Your task to perform on an android device: create a new album in the google photos Image 0: 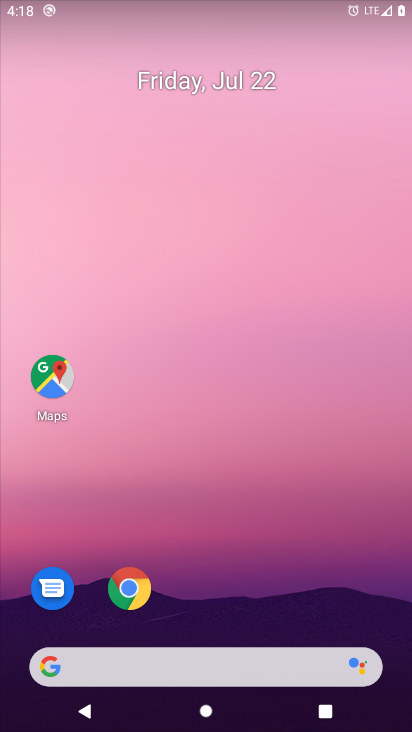
Step 0: drag from (312, 598) to (331, 75)
Your task to perform on an android device: create a new album in the google photos Image 1: 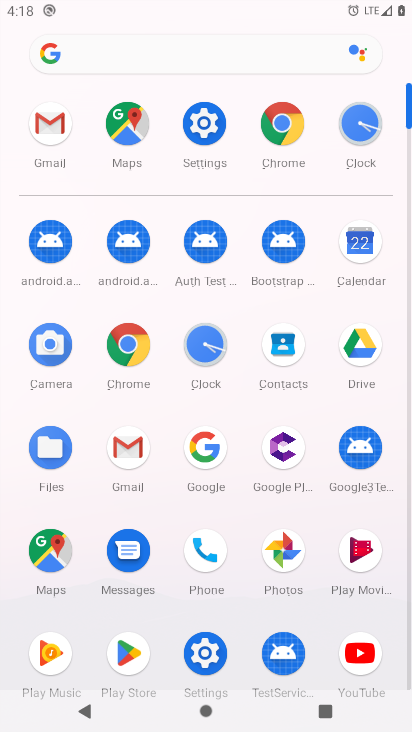
Step 1: click (278, 547)
Your task to perform on an android device: create a new album in the google photos Image 2: 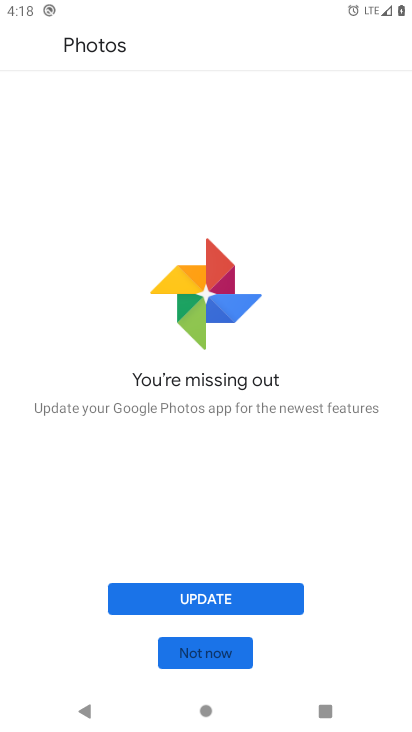
Step 2: click (223, 585)
Your task to perform on an android device: create a new album in the google photos Image 3: 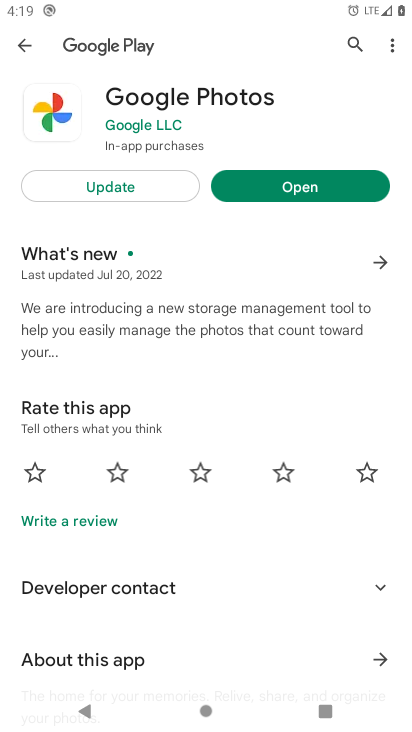
Step 3: click (138, 184)
Your task to perform on an android device: create a new album in the google photos Image 4: 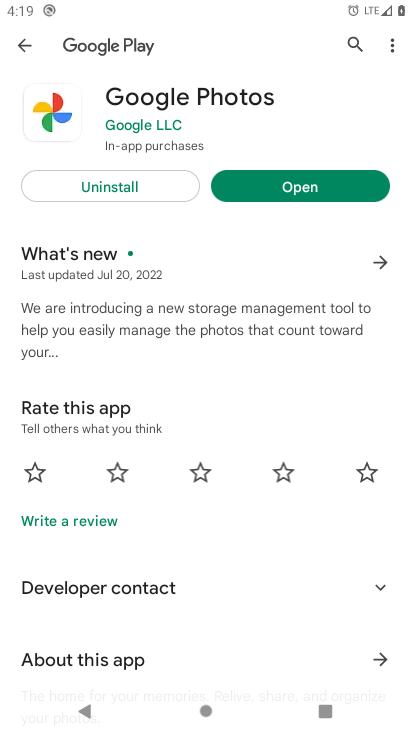
Step 4: click (365, 191)
Your task to perform on an android device: create a new album in the google photos Image 5: 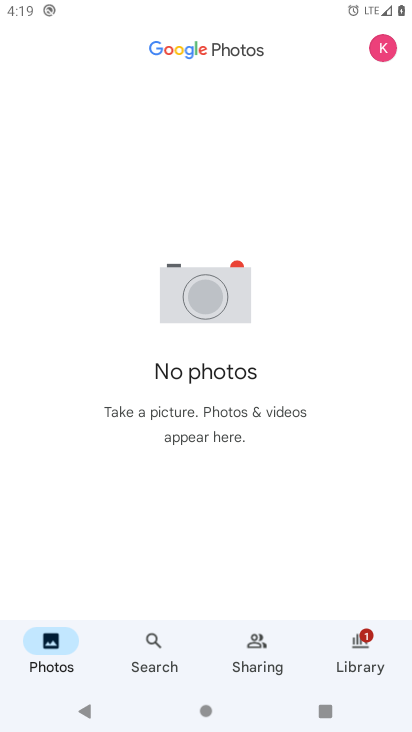
Step 5: task complete